Your task to perform on an android device: Go to ESPN.com Image 0: 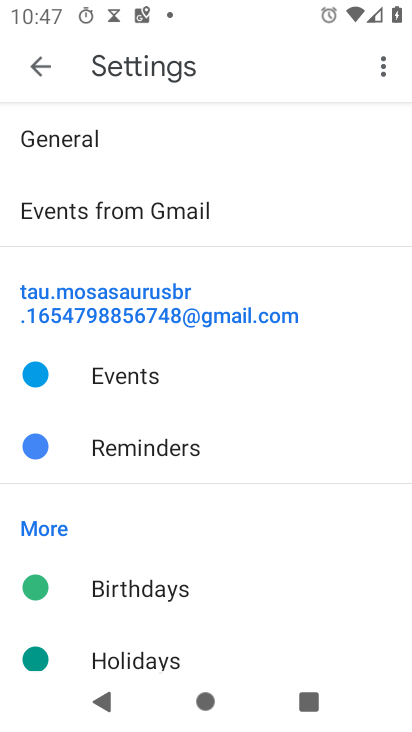
Step 0: press home button
Your task to perform on an android device: Go to ESPN.com Image 1: 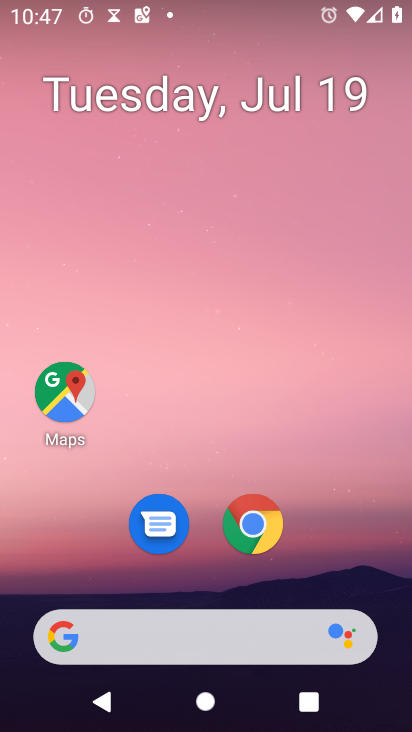
Step 1: click (256, 506)
Your task to perform on an android device: Go to ESPN.com Image 2: 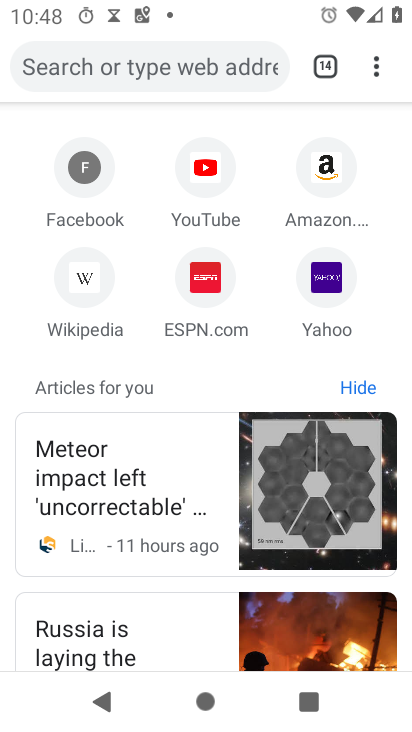
Step 2: click (189, 304)
Your task to perform on an android device: Go to ESPN.com Image 3: 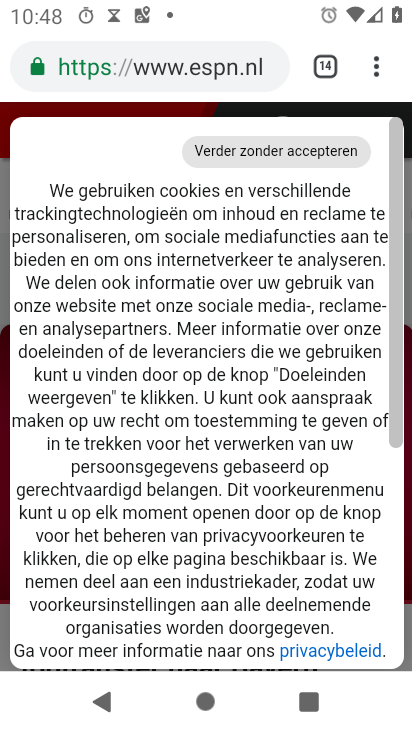
Step 3: drag from (179, 547) to (318, 150)
Your task to perform on an android device: Go to ESPN.com Image 4: 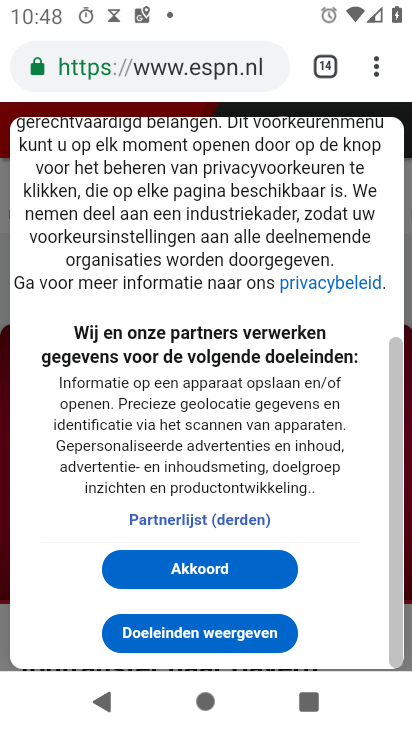
Step 4: click (216, 567)
Your task to perform on an android device: Go to ESPN.com Image 5: 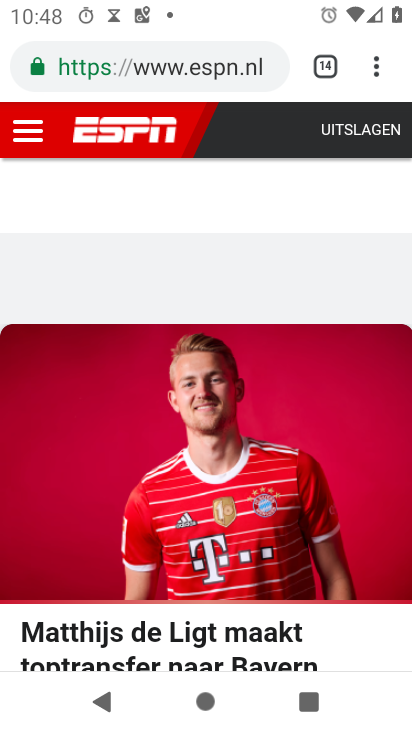
Step 5: task complete